Your task to perform on an android device: see tabs open on other devices in the chrome app Image 0: 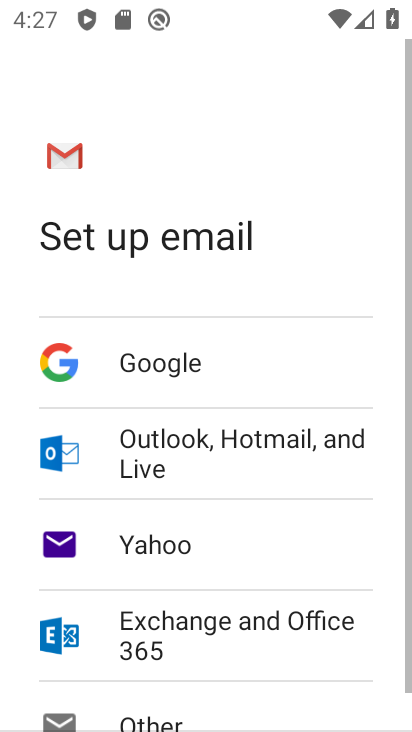
Step 0: press home button
Your task to perform on an android device: see tabs open on other devices in the chrome app Image 1: 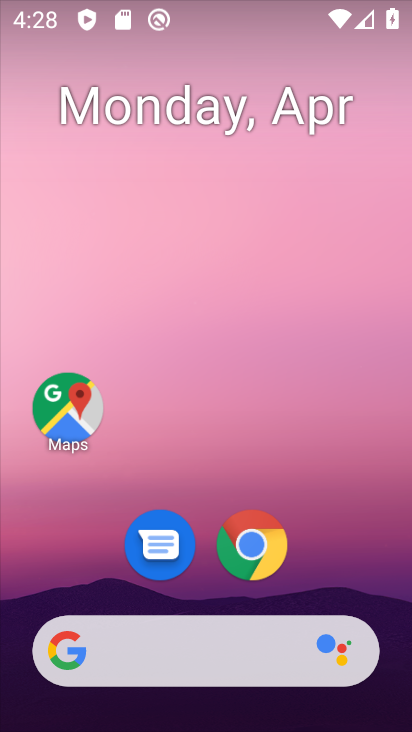
Step 1: click (251, 551)
Your task to perform on an android device: see tabs open on other devices in the chrome app Image 2: 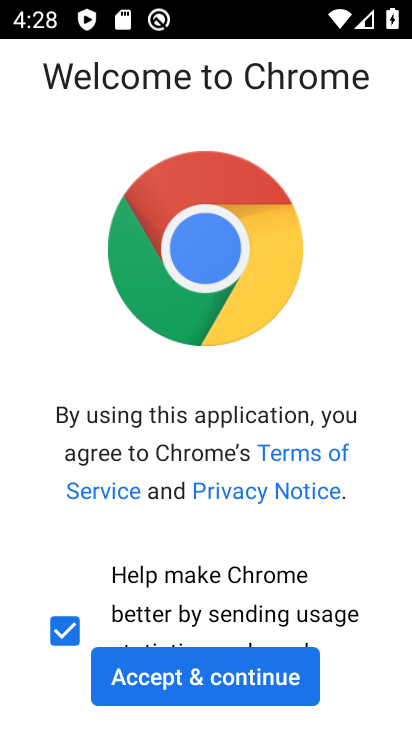
Step 2: click (256, 669)
Your task to perform on an android device: see tabs open on other devices in the chrome app Image 3: 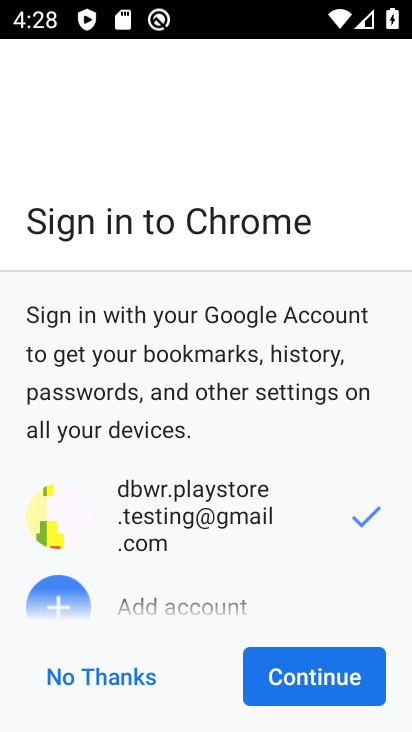
Step 3: click (143, 687)
Your task to perform on an android device: see tabs open on other devices in the chrome app Image 4: 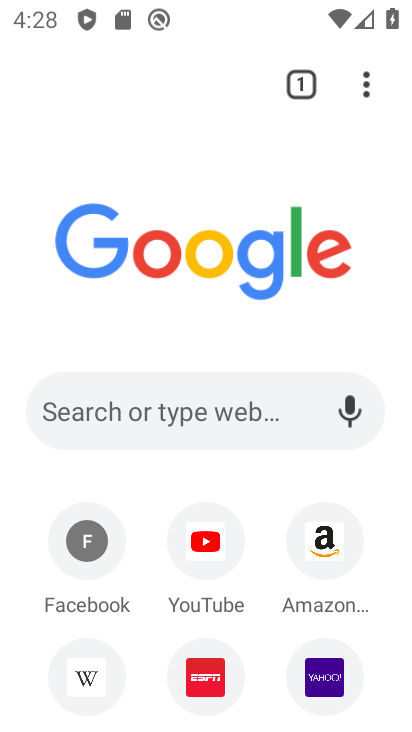
Step 4: click (369, 94)
Your task to perform on an android device: see tabs open on other devices in the chrome app Image 5: 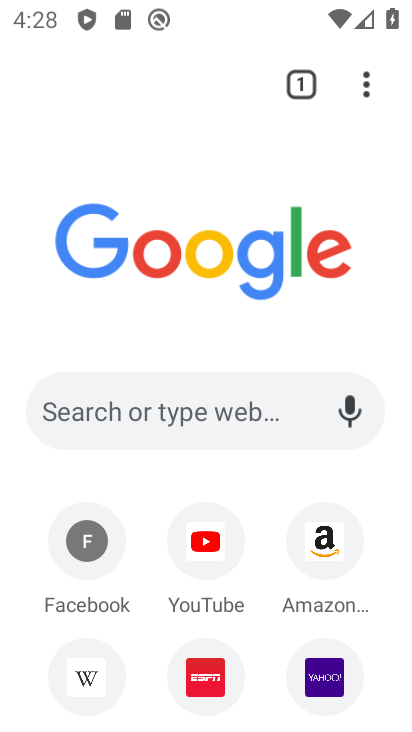
Step 5: drag from (368, 84) to (133, 404)
Your task to perform on an android device: see tabs open on other devices in the chrome app Image 6: 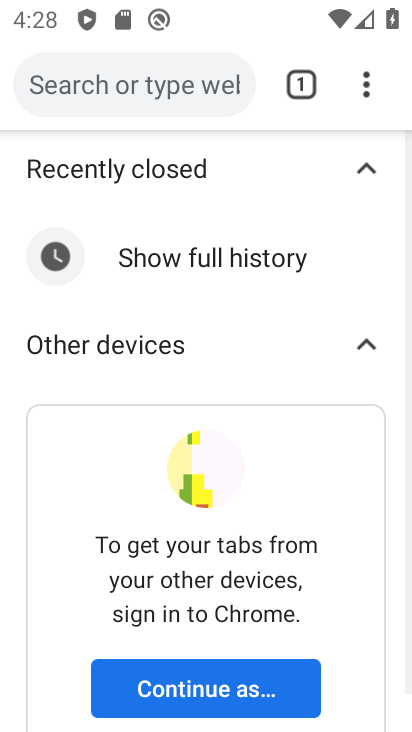
Step 6: drag from (330, 624) to (320, 411)
Your task to perform on an android device: see tabs open on other devices in the chrome app Image 7: 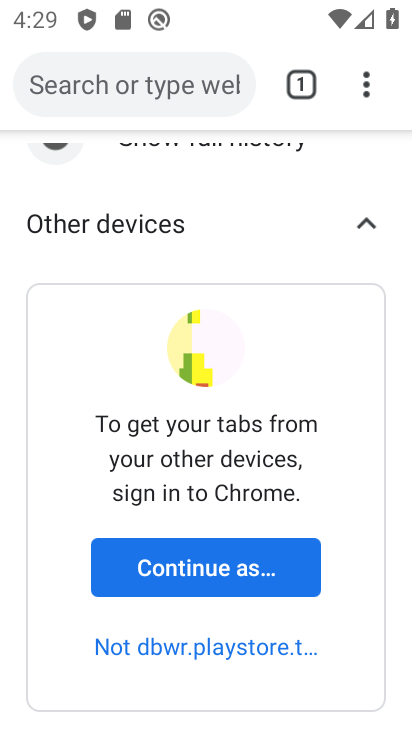
Step 7: click (167, 565)
Your task to perform on an android device: see tabs open on other devices in the chrome app Image 8: 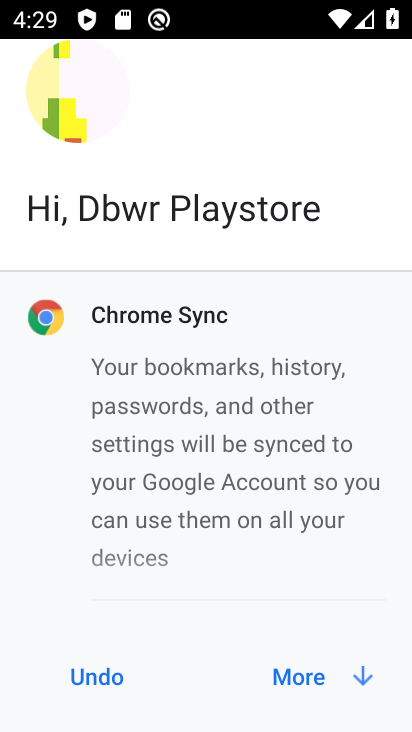
Step 8: click (310, 683)
Your task to perform on an android device: see tabs open on other devices in the chrome app Image 9: 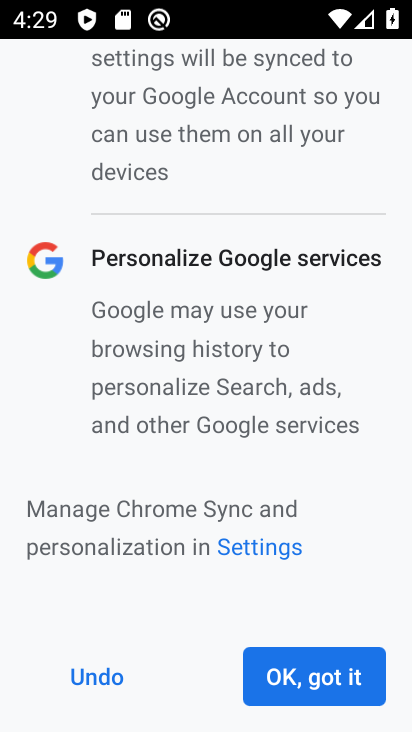
Step 9: click (310, 682)
Your task to perform on an android device: see tabs open on other devices in the chrome app Image 10: 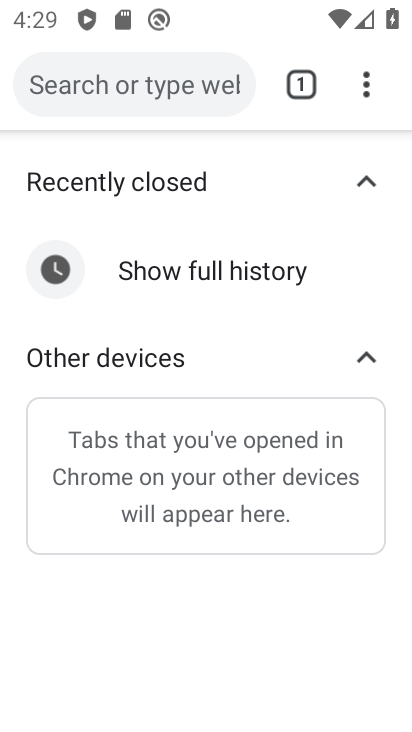
Step 10: task complete